Your task to perform on an android device: Go to accessibility settings Image 0: 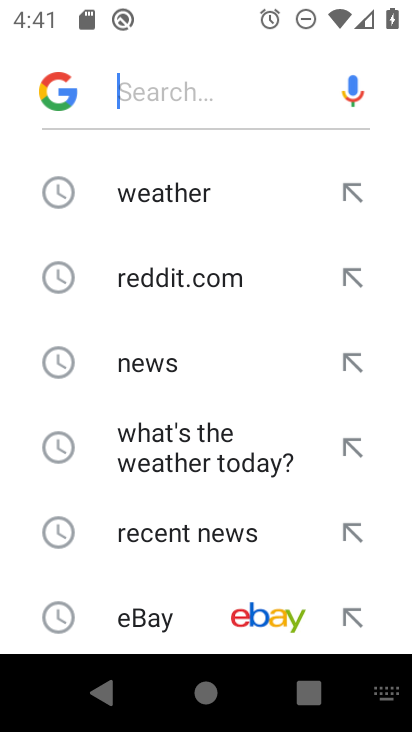
Step 0: press home button
Your task to perform on an android device: Go to accessibility settings Image 1: 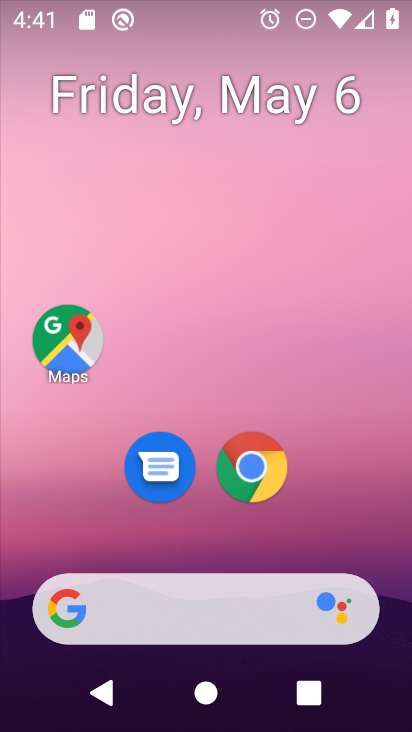
Step 1: drag from (288, 509) to (316, 163)
Your task to perform on an android device: Go to accessibility settings Image 2: 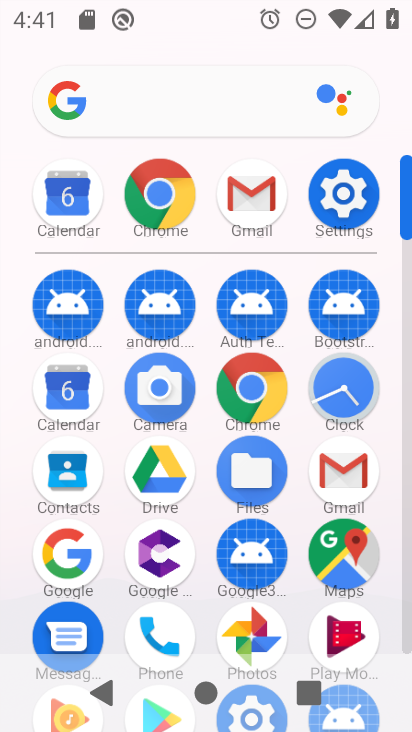
Step 2: click (334, 206)
Your task to perform on an android device: Go to accessibility settings Image 3: 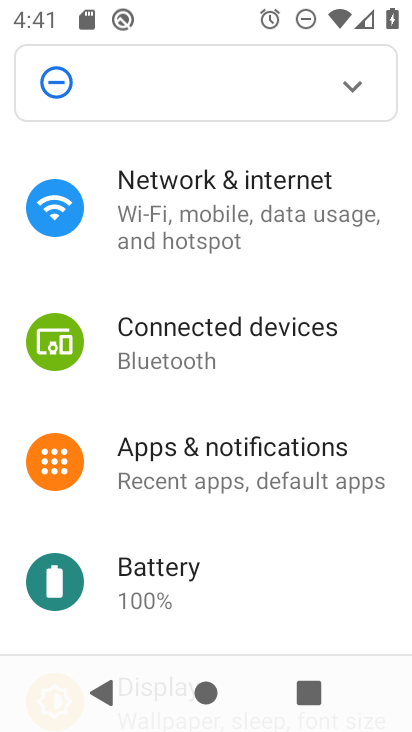
Step 3: drag from (193, 586) to (234, 122)
Your task to perform on an android device: Go to accessibility settings Image 4: 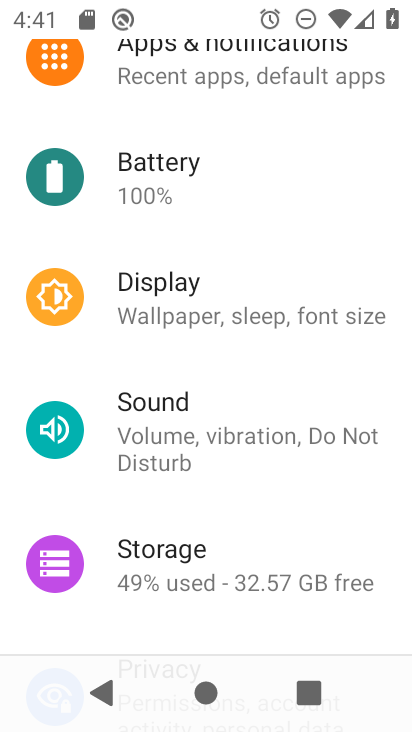
Step 4: drag from (211, 530) to (191, 81)
Your task to perform on an android device: Go to accessibility settings Image 5: 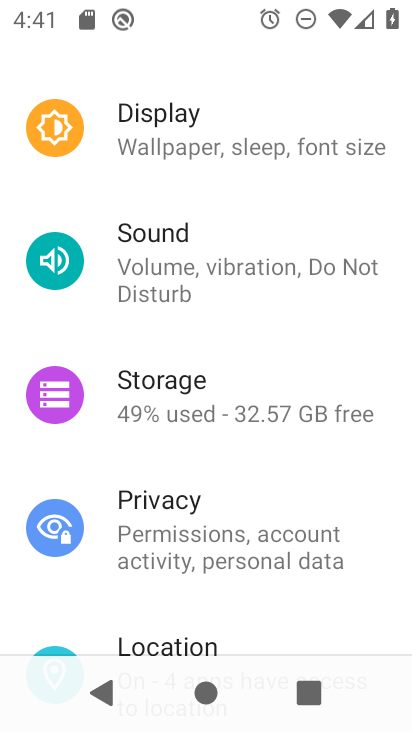
Step 5: drag from (203, 562) to (201, 98)
Your task to perform on an android device: Go to accessibility settings Image 6: 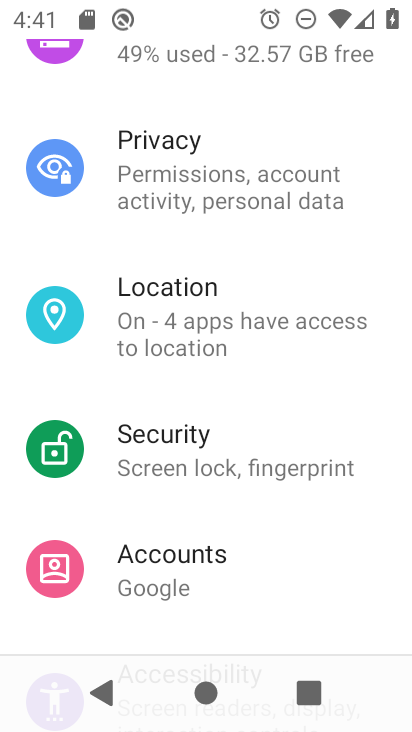
Step 6: drag from (209, 562) to (236, 151)
Your task to perform on an android device: Go to accessibility settings Image 7: 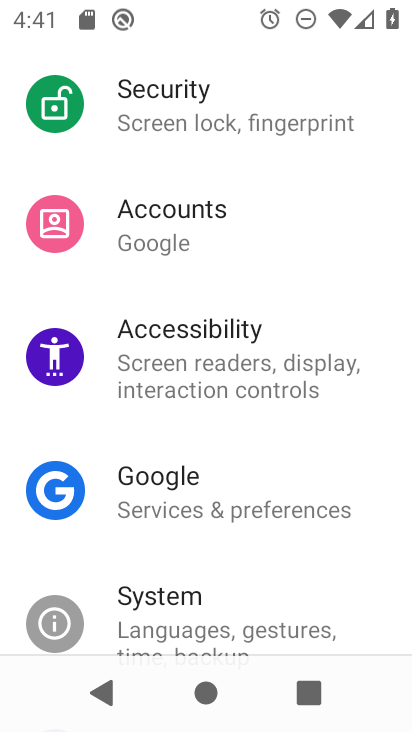
Step 7: click (203, 382)
Your task to perform on an android device: Go to accessibility settings Image 8: 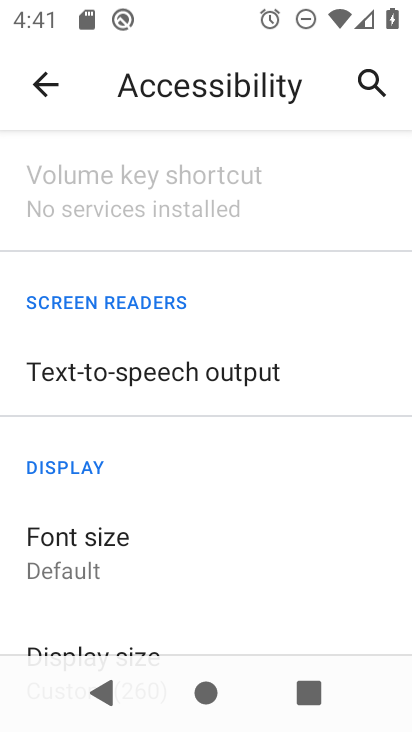
Step 8: task complete